Your task to perform on an android device: turn on notifications settings in the gmail app Image 0: 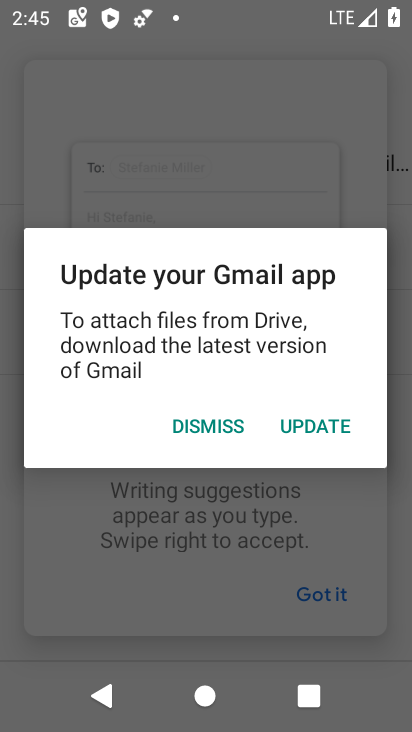
Step 0: press home button
Your task to perform on an android device: turn on notifications settings in the gmail app Image 1: 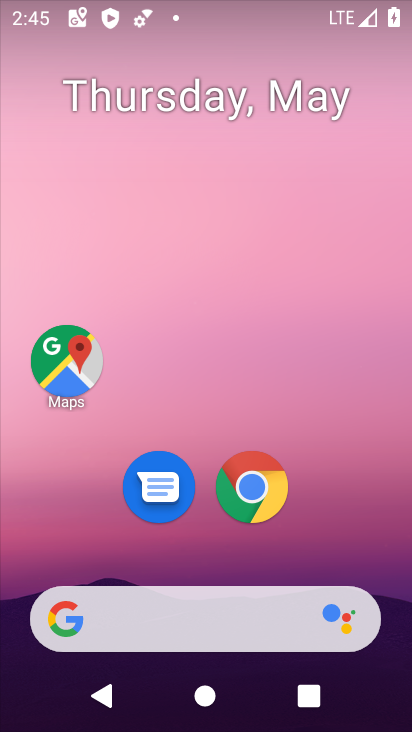
Step 1: drag from (182, 686) to (234, 159)
Your task to perform on an android device: turn on notifications settings in the gmail app Image 2: 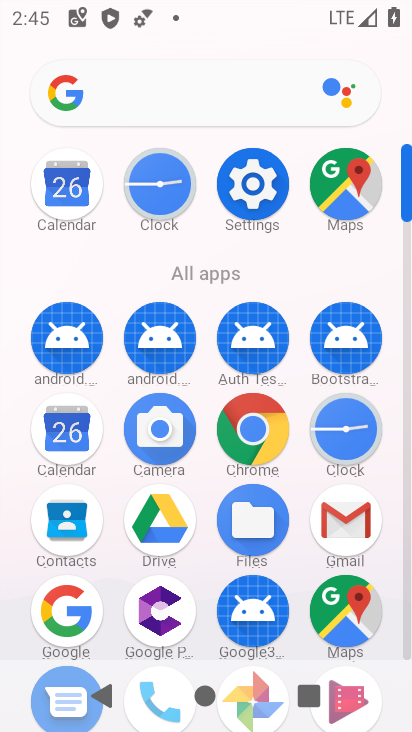
Step 2: click (340, 537)
Your task to perform on an android device: turn on notifications settings in the gmail app Image 3: 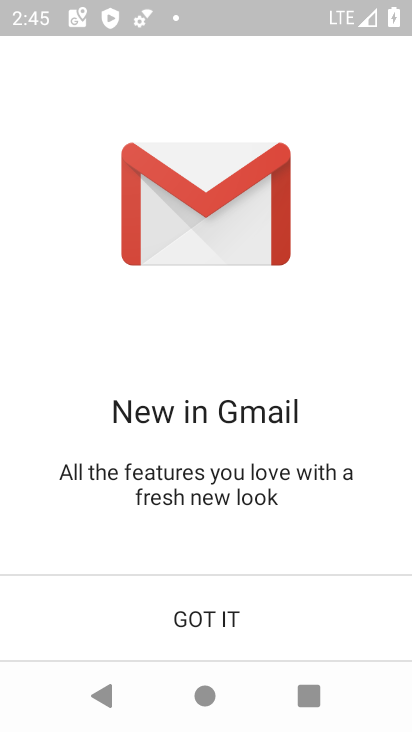
Step 3: click (269, 603)
Your task to perform on an android device: turn on notifications settings in the gmail app Image 4: 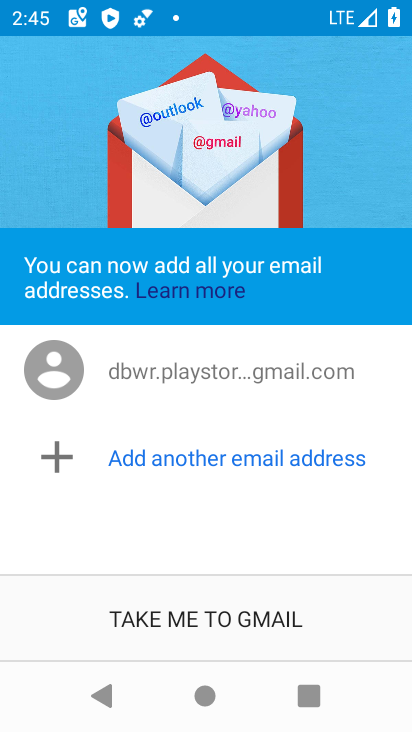
Step 4: click (269, 611)
Your task to perform on an android device: turn on notifications settings in the gmail app Image 5: 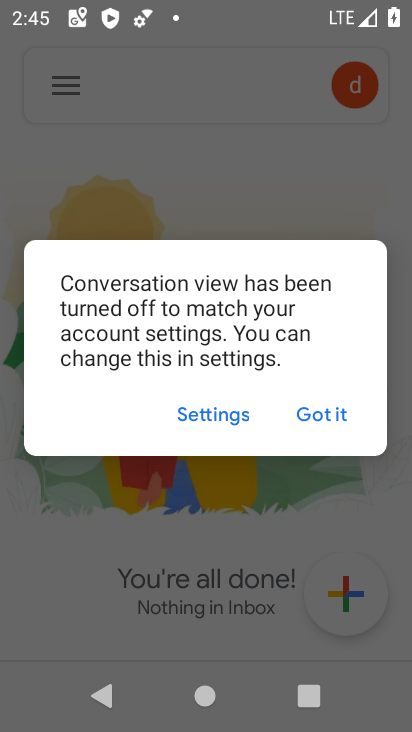
Step 5: click (325, 412)
Your task to perform on an android device: turn on notifications settings in the gmail app Image 6: 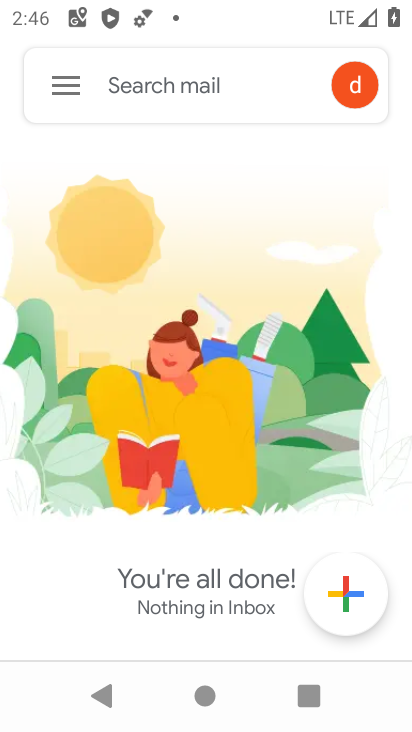
Step 6: click (67, 94)
Your task to perform on an android device: turn on notifications settings in the gmail app Image 7: 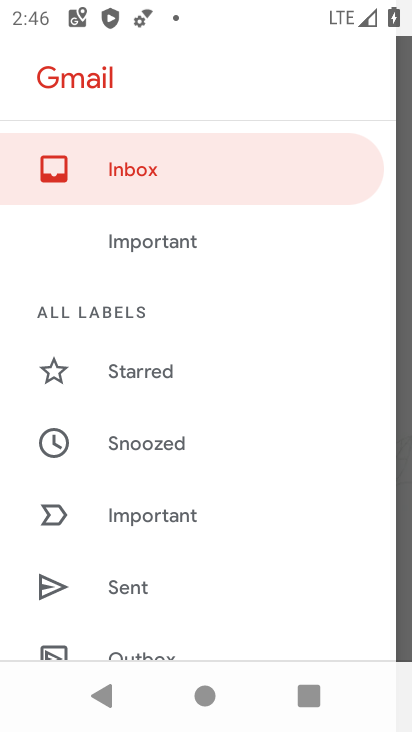
Step 7: drag from (169, 503) to (220, 195)
Your task to perform on an android device: turn on notifications settings in the gmail app Image 8: 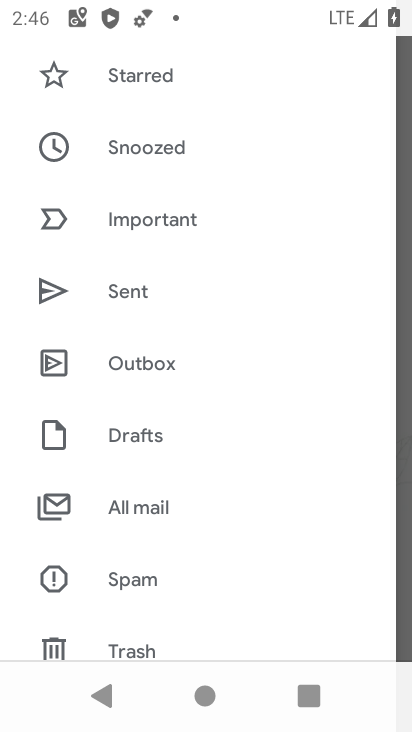
Step 8: drag from (161, 527) to (223, 250)
Your task to perform on an android device: turn on notifications settings in the gmail app Image 9: 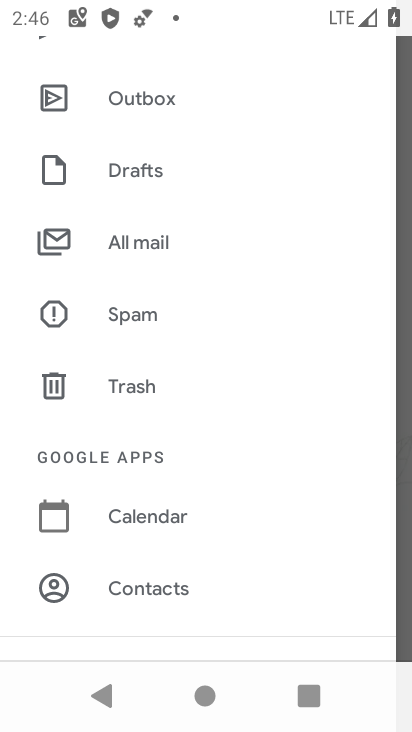
Step 9: drag from (174, 563) to (238, 279)
Your task to perform on an android device: turn on notifications settings in the gmail app Image 10: 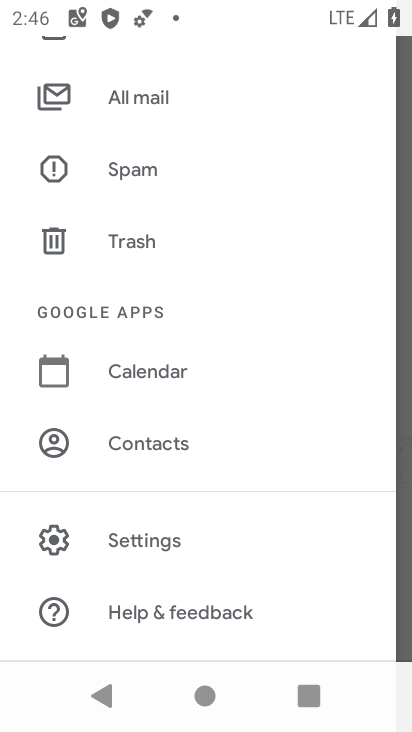
Step 10: click (189, 534)
Your task to perform on an android device: turn on notifications settings in the gmail app Image 11: 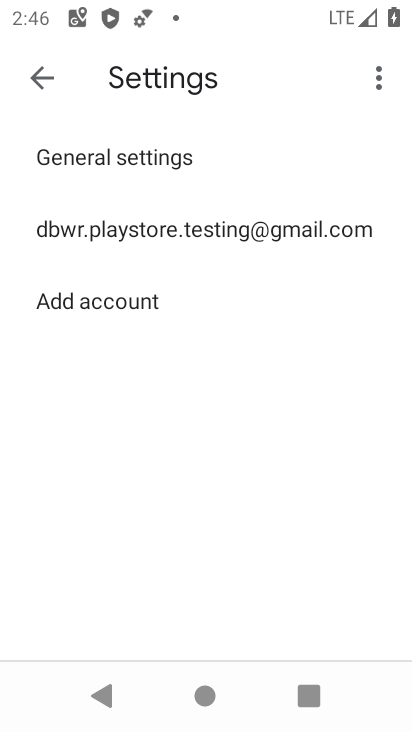
Step 11: click (133, 158)
Your task to perform on an android device: turn on notifications settings in the gmail app Image 12: 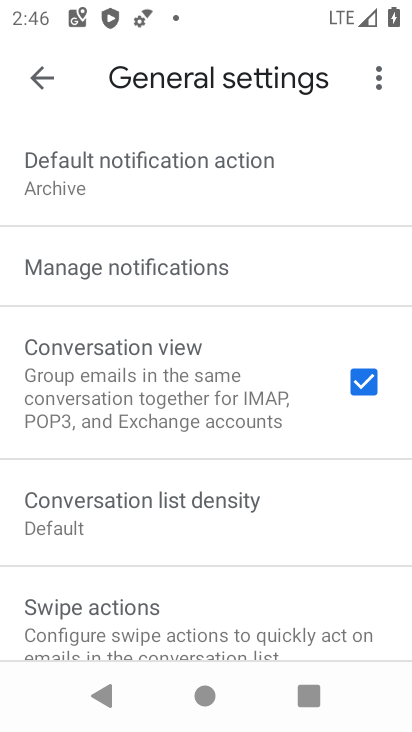
Step 12: click (172, 282)
Your task to perform on an android device: turn on notifications settings in the gmail app Image 13: 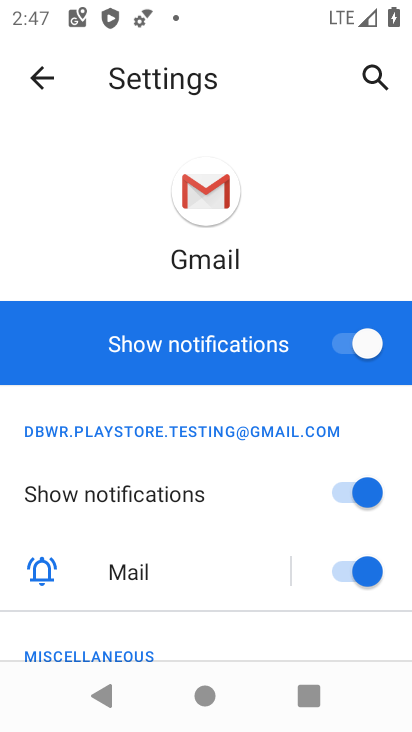
Step 13: task complete